Your task to perform on an android device: turn on wifi Image 0: 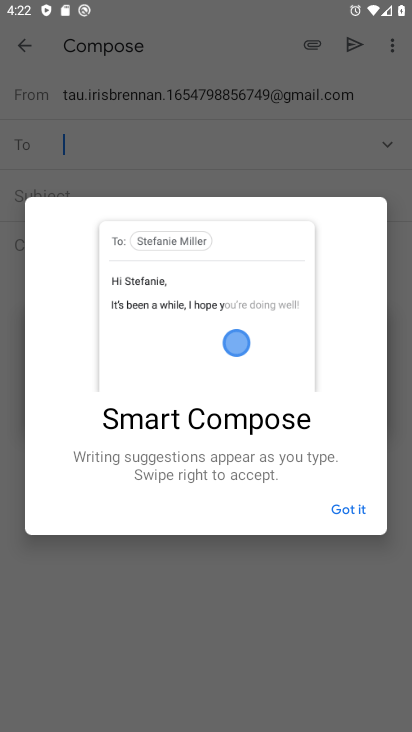
Step 0: press home button
Your task to perform on an android device: turn on wifi Image 1: 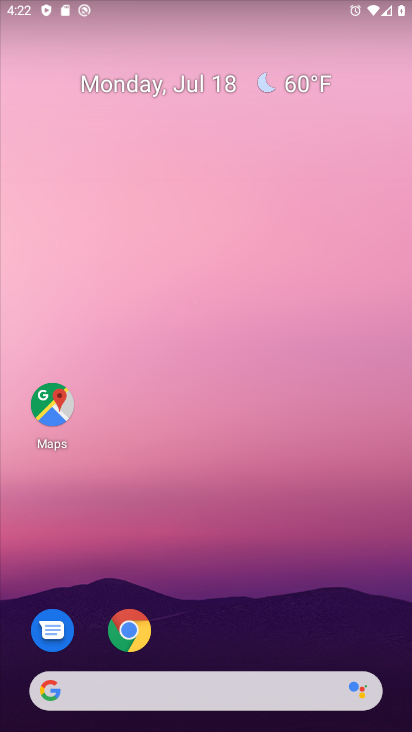
Step 1: drag from (255, 526) to (176, 139)
Your task to perform on an android device: turn on wifi Image 2: 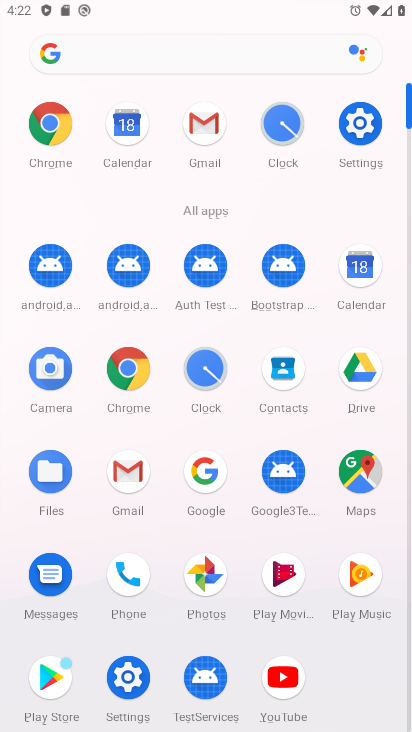
Step 2: click (361, 120)
Your task to perform on an android device: turn on wifi Image 3: 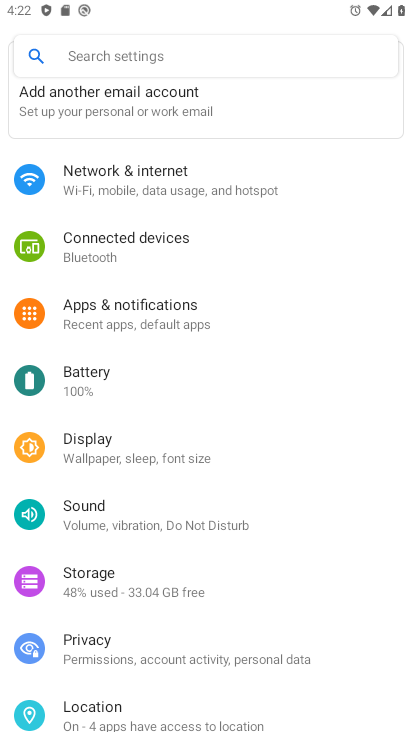
Step 3: click (122, 171)
Your task to perform on an android device: turn on wifi Image 4: 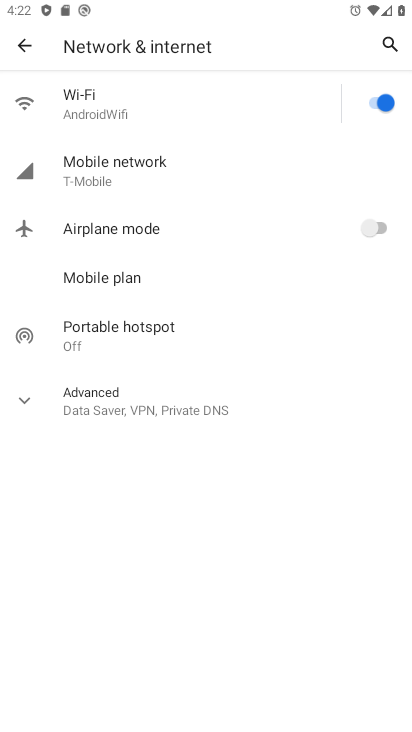
Step 4: task complete